Your task to perform on an android device: turn off picture-in-picture Image 0: 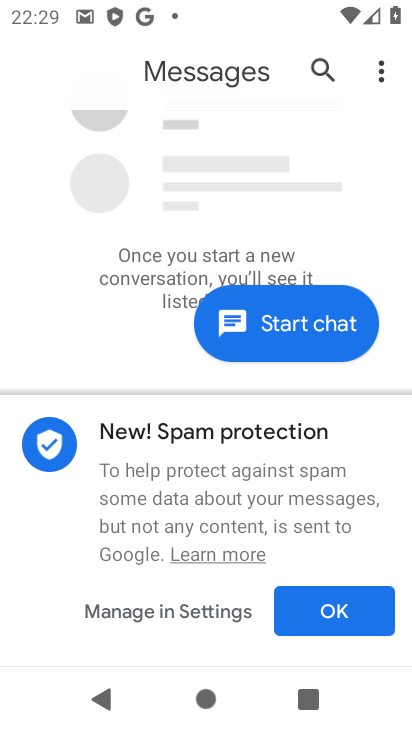
Step 0: press home button
Your task to perform on an android device: turn off picture-in-picture Image 1: 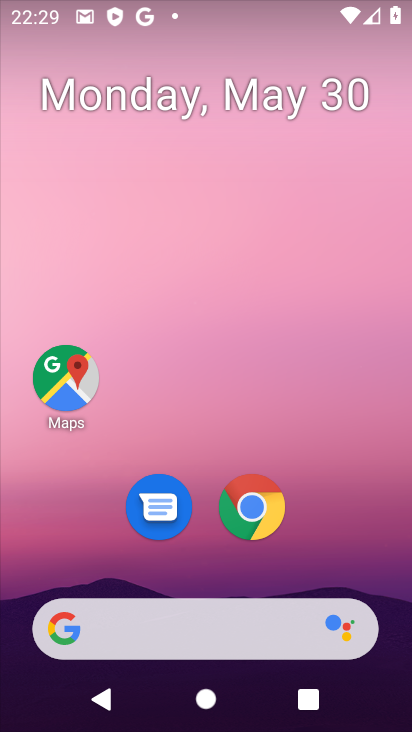
Step 1: drag from (365, 547) to (359, 143)
Your task to perform on an android device: turn off picture-in-picture Image 2: 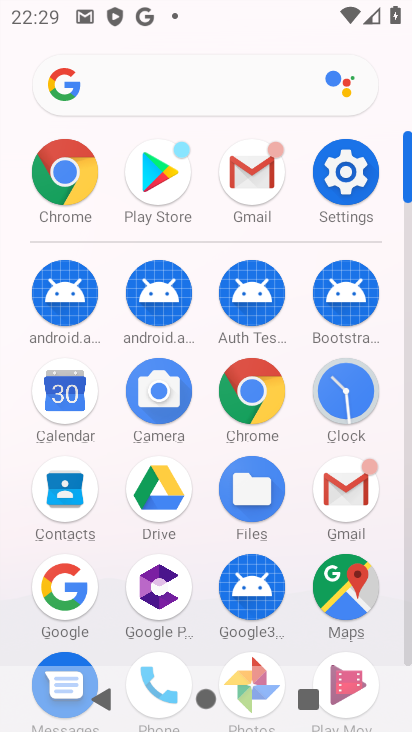
Step 2: click (349, 199)
Your task to perform on an android device: turn off picture-in-picture Image 3: 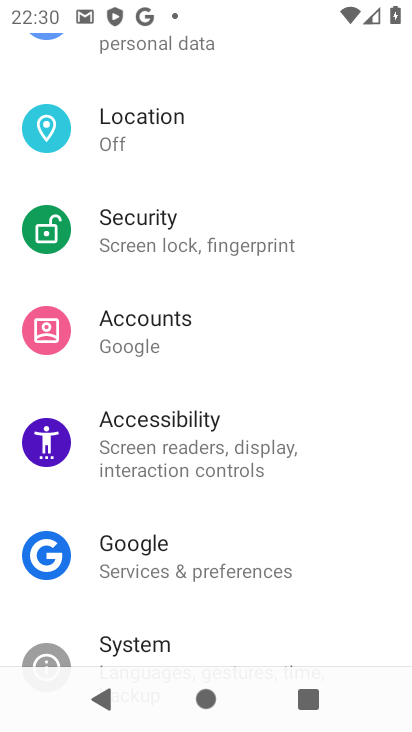
Step 3: drag from (329, 339) to (328, 418)
Your task to perform on an android device: turn off picture-in-picture Image 4: 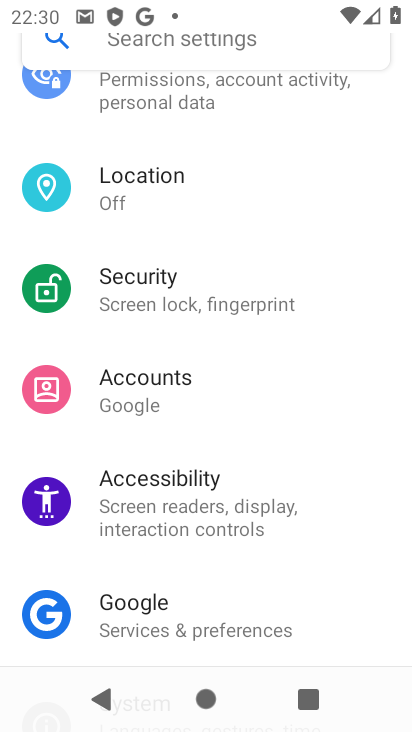
Step 4: drag from (341, 283) to (344, 389)
Your task to perform on an android device: turn off picture-in-picture Image 5: 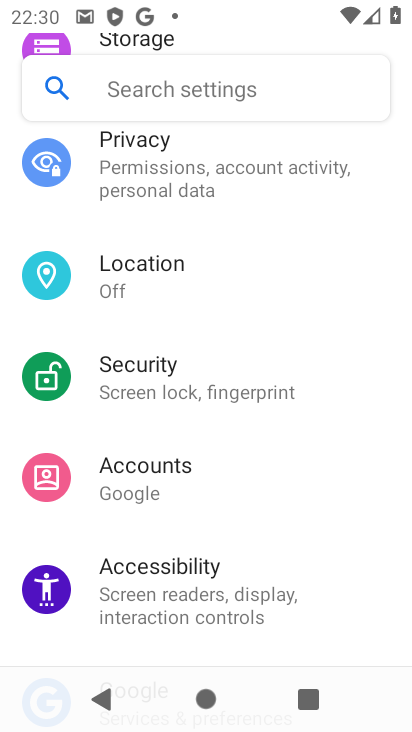
Step 5: drag from (340, 261) to (340, 359)
Your task to perform on an android device: turn off picture-in-picture Image 6: 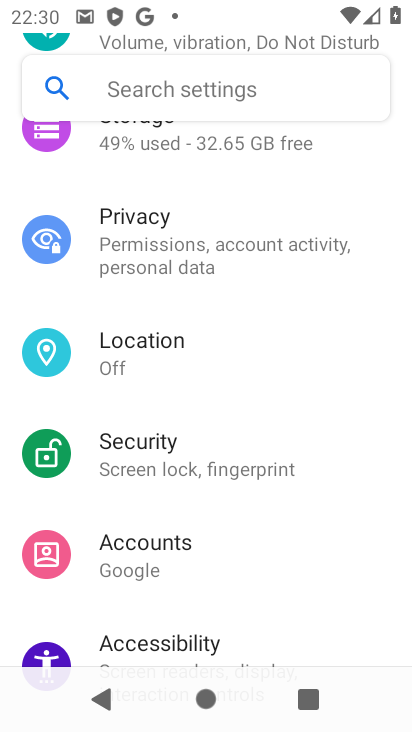
Step 6: drag from (345, 202) to (346, 356)
Your task to perform on an android device: turn off picture-in-picture Image 7: 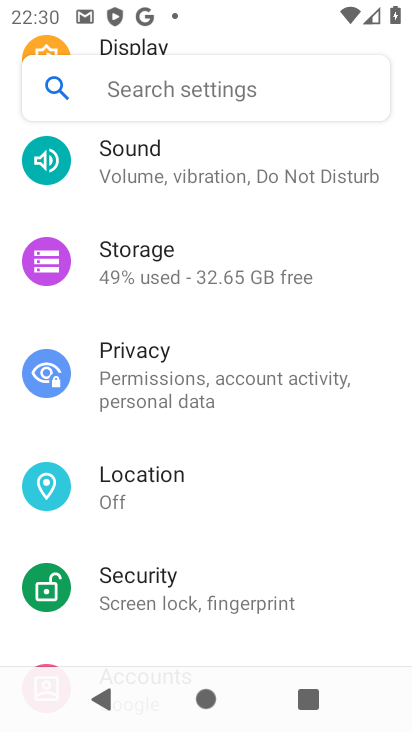
Step 7: drag from (352, 213) to (343, 338)
Your task to perform on an android device: turn off picture-in-picture Image 8: 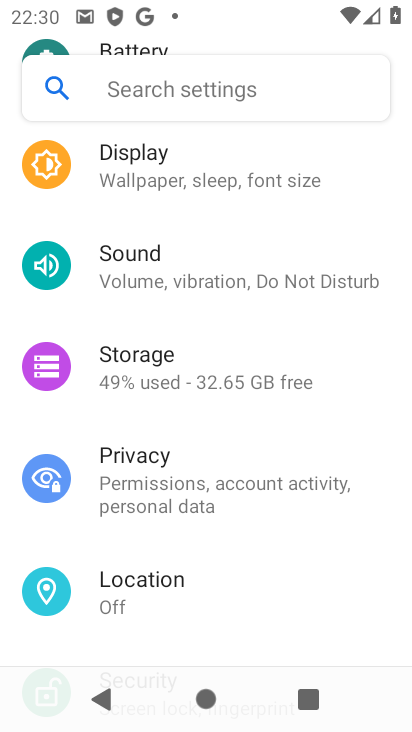
Step 8: drag from (346, 178) to (346, 312)
Your task to perform on an android device: turn off picture-in-picture Image 9: 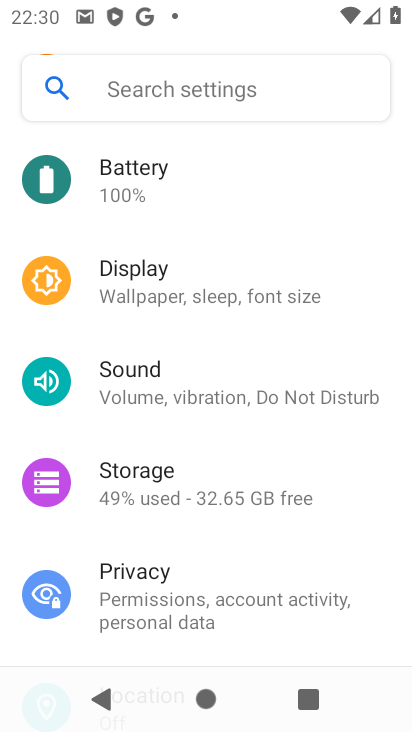
Step 9: drag from (346, 160) to (346, 296)
Your task to perform on an android device: turn off picture-in-picture Image 10: 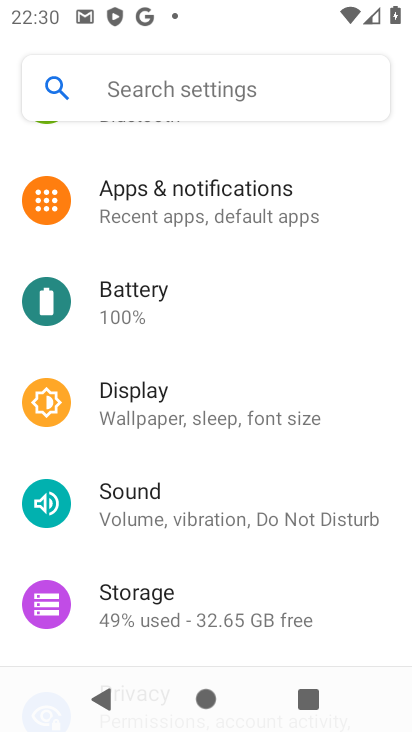
Step 10: drag from (339, 170) to (337, 302)
Your task to perform on an android device: turn off picture-in-picture Image 11: 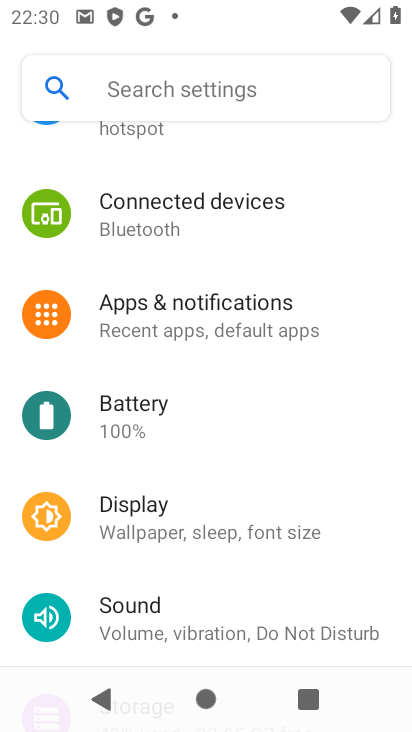
Step 11: drag from (346, 167) to (358, 302)
Your task to perform on an android device: turn off picture-in-picture Image 12: 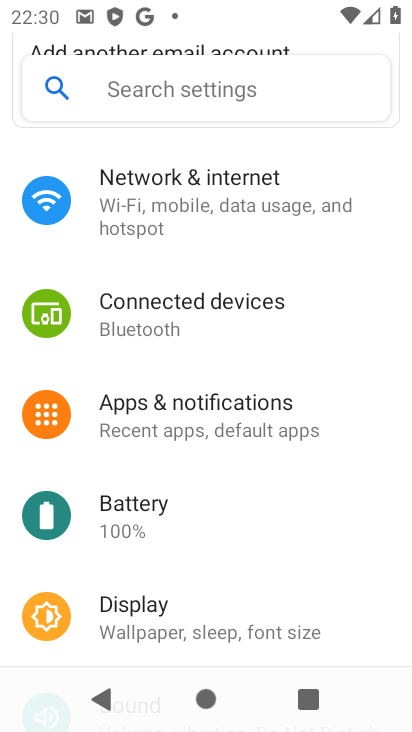
Step 12: click (245, 428)
Your task to perform on an android device: turn off picture-in-picture Image 13: 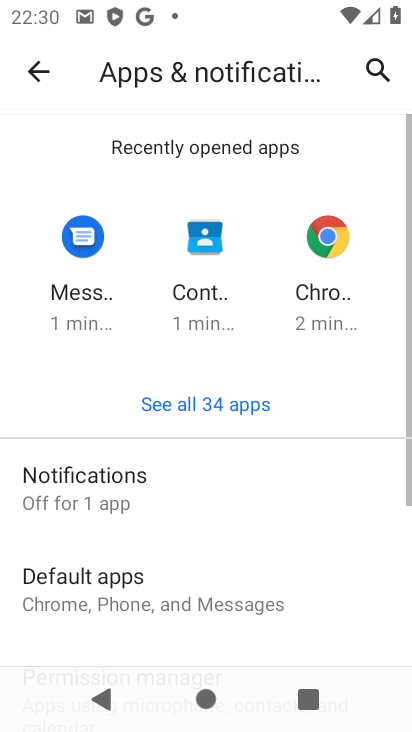
Step 13: drag from (251, 453) to (280, 240)
Your task to perform on an android device: turn off picture-in-picture Image 14: 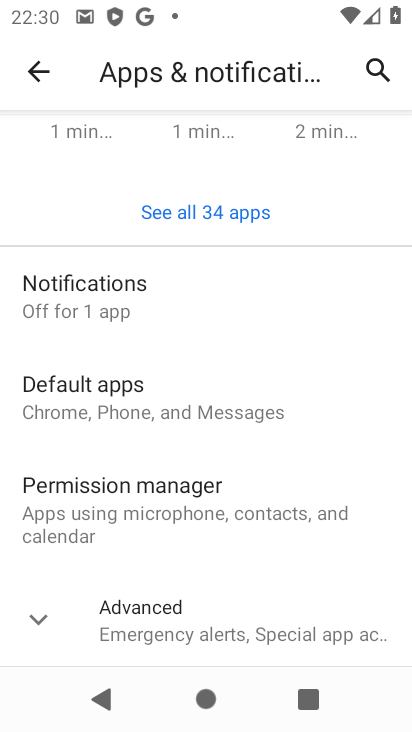
Step 14: drag from (329, 463) to (330, 306)
Your task to perform on an android device: turn off picture-in-picture Image 15: 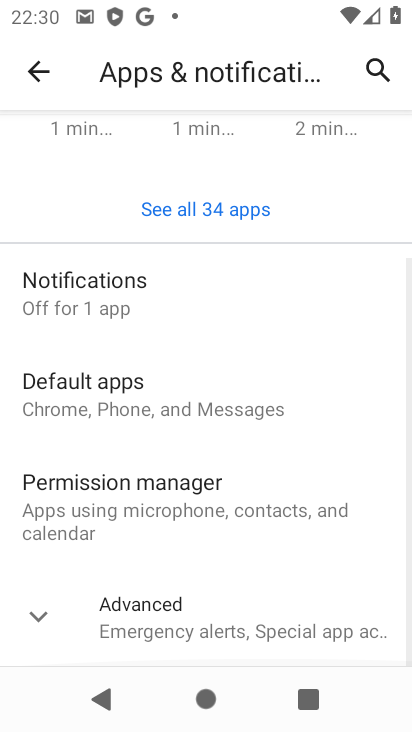
Step 15: click (306, 619)
Your task to perform on an android device: turn off picture-in-picture Image 16: 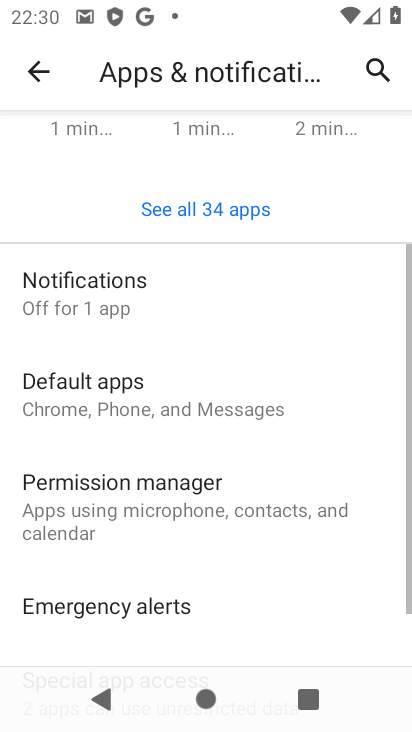
Step 16: drag from (310, 590) to (337, 329)
Your task to perform on an android device: turn off picture-in-picture Image 17: 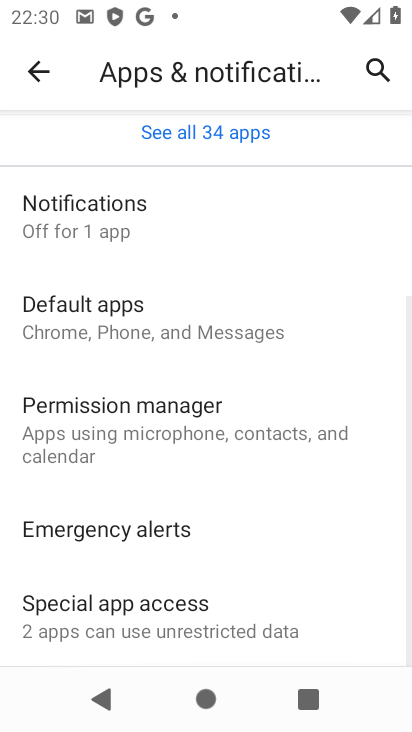
Step 17: click (237, 609)
Your task to perform on an android device: turn off picture-in-picture Image 18: 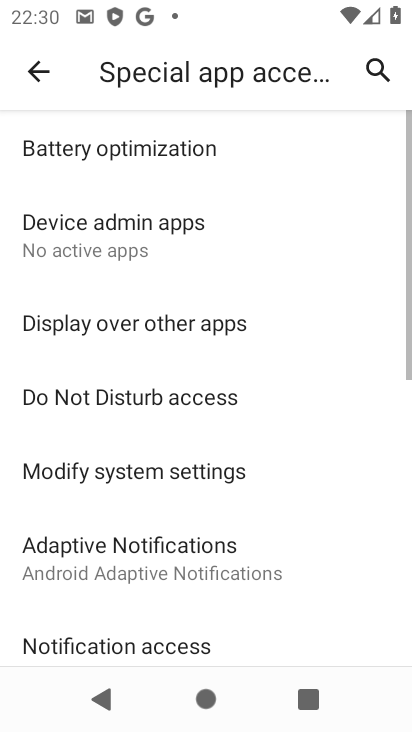
Step 18: drag from (321, 536) to (343, 347)
Your task to perform on an android device: turn off picture-in-picture Image 19: 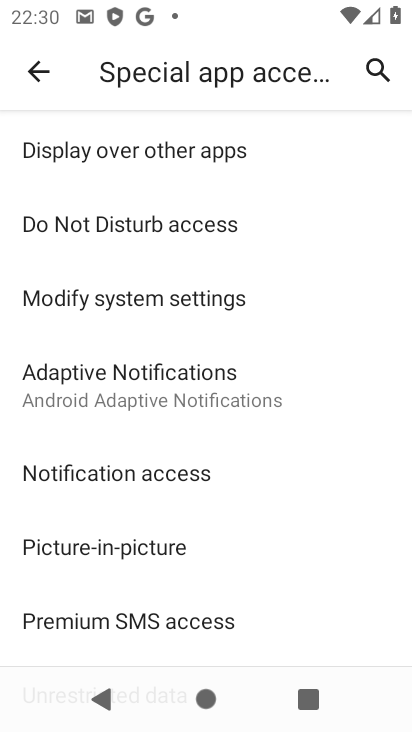
Step 19: drag from (330, 572) to (333, 378)
Your task to perform on an android device: turn off picture-in-picture Image 20: 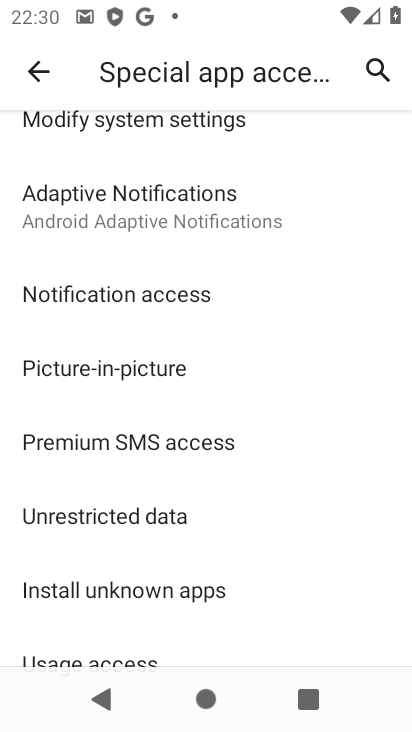
Step 20: click (202, 375)
Your task to perform on an android device: turn off picture-in-picture Image 21: 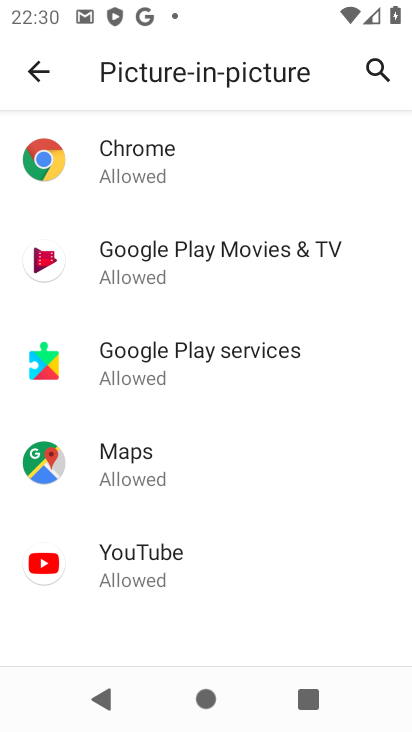
Step 21: click (176, 557)
Your task to perform on an android device: turn off picture-in-picture Image 22: 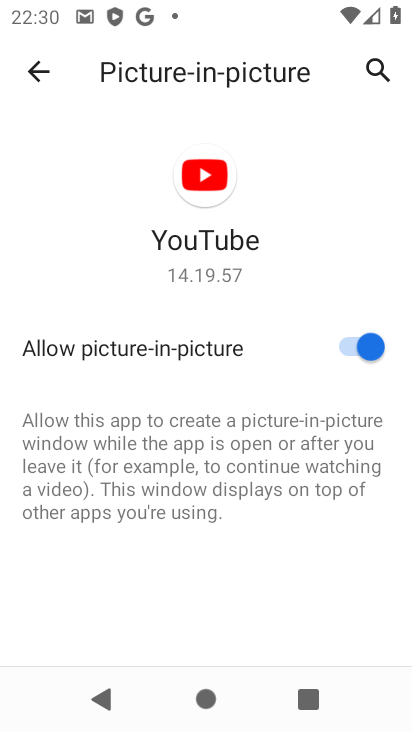
Step 22: click (362, 345)
Your task to perform on an android device: turn off picture-in-picture Image 23: 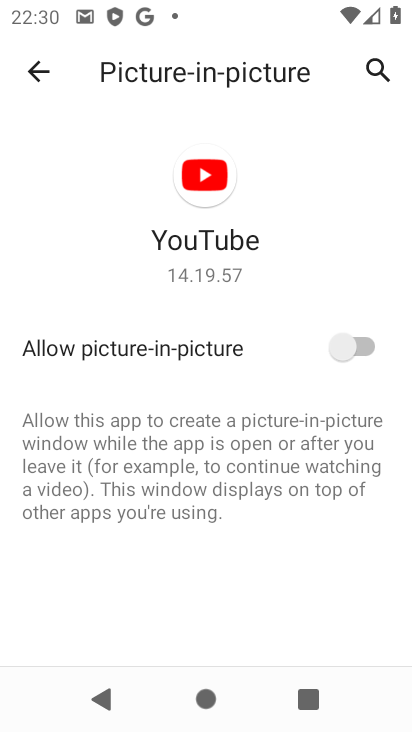
Step 23: task complete